Your task to perform on an android device: open chrome and create a bookmark for the current page Image 0: 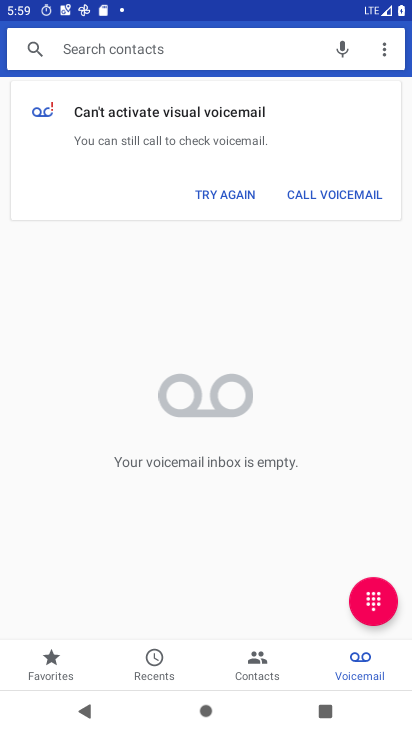
Step 0: press home button
Your task to perform on an android device: open chrome and create a bookmark for the current page Image 1: 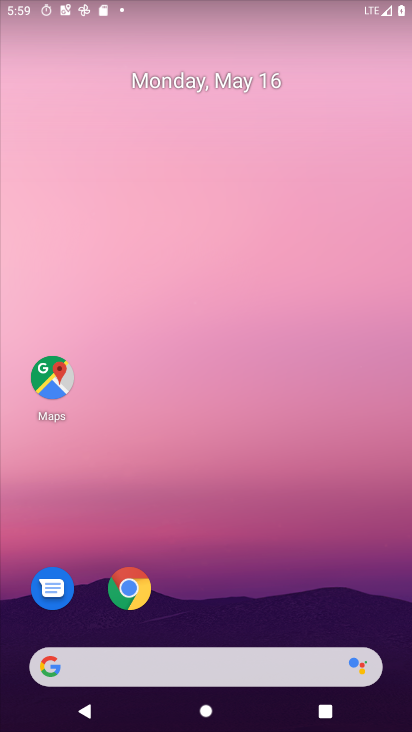
Step 1: click (123, 588)
Your task to perform on an android device: open chrome and create a bookmark for the current page Image 2: 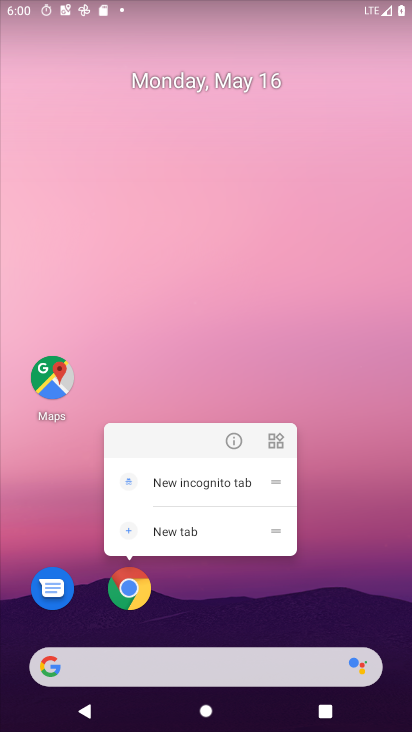
Step 2: click (126, 594)
Your task to perform on an android device: open chrome and create a bookmark for the current page Image 3: 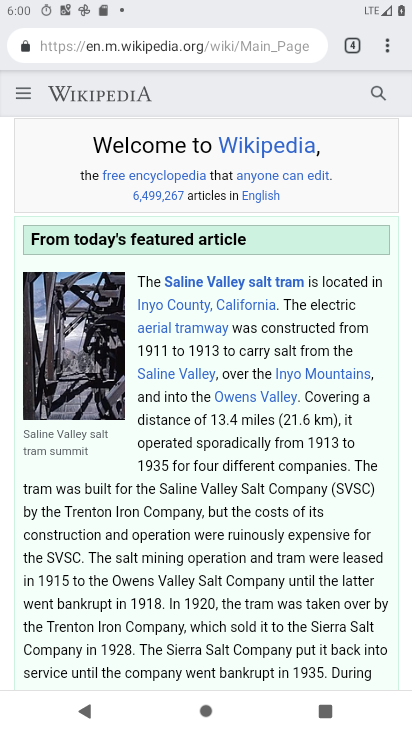
Step 3: click (383, 45)
Your task to perform on an android device: open chrome and create a bookmark for the current page Image 4: 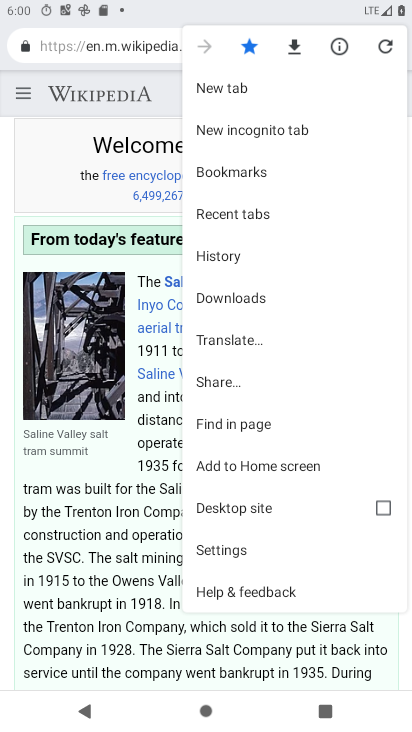
Step 4: task complete